Your task to perform on an android device: Open the map Image 0: 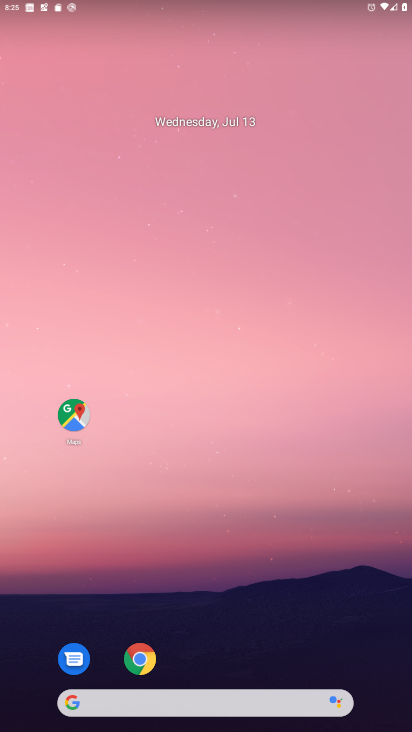
Step 0: click (73, 420)
Your task to perform on an android device: Open the map Image 1: 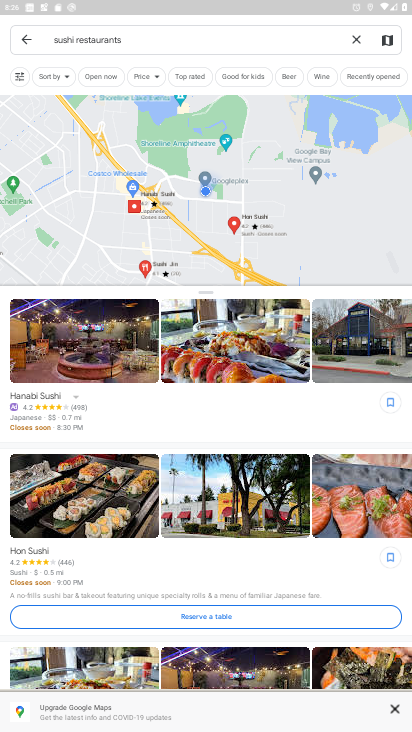
Step 1: task complete